Your task to perform on an android device: change the clock display to digital Image 0: 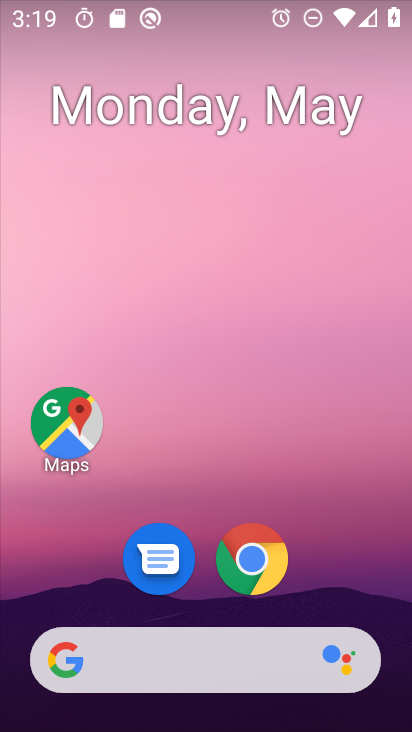
Step 0: drag from (202, 591) to (282, 111)
Your task to perform on an android device: change the clock display to digital Image 1: 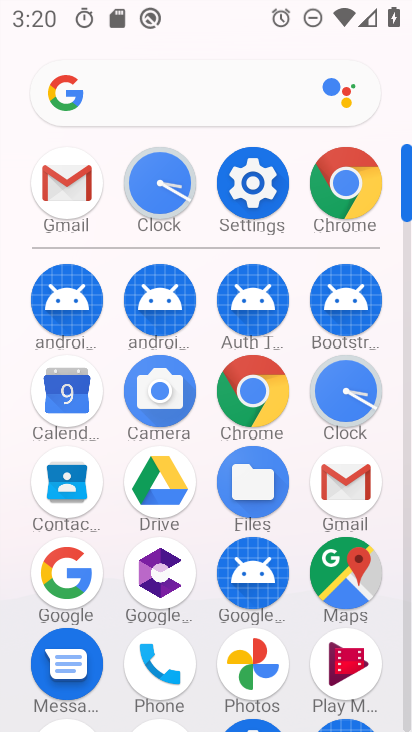
Step 1: drag from (214, 668) to (249, 202)
Your task to perform on an android device: change the clock display to digital Image 2: 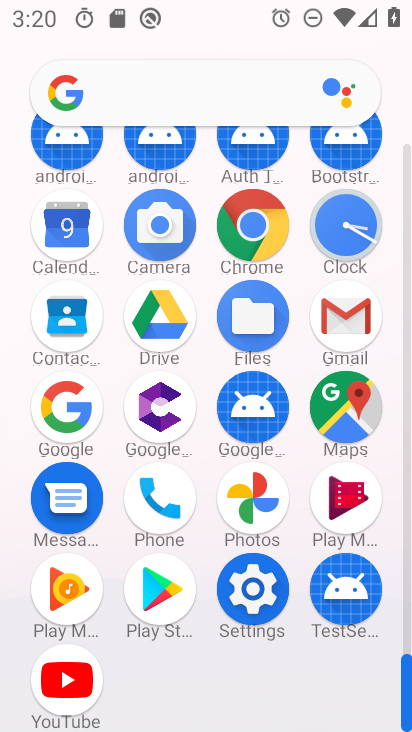
Step 2: click (353, 215)
Your task to perform on an android device: change the clock display to digital Image 3: 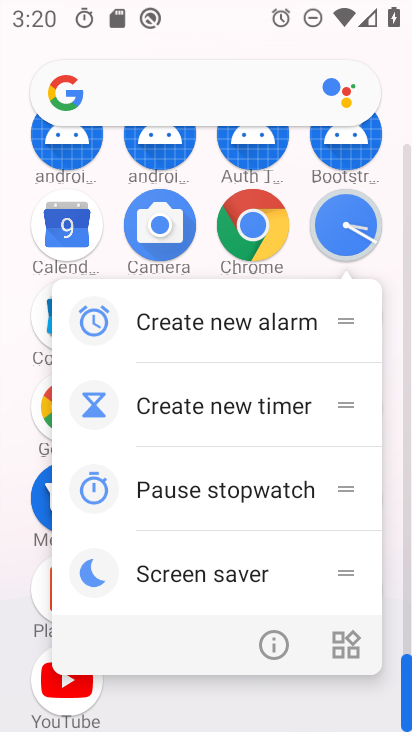
Step 3: click (272, 647)
Your task to perform on an android device: change the clock display to digital Image 4: 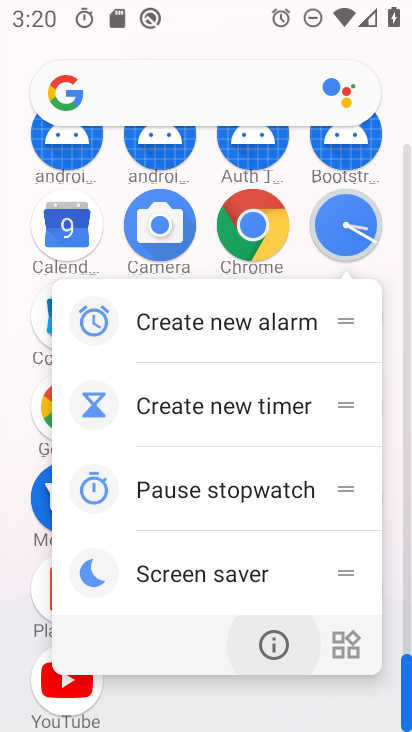
Step 4: click (269, 646)
Your task to perform on an android device: change the clock display to digital Image 5: 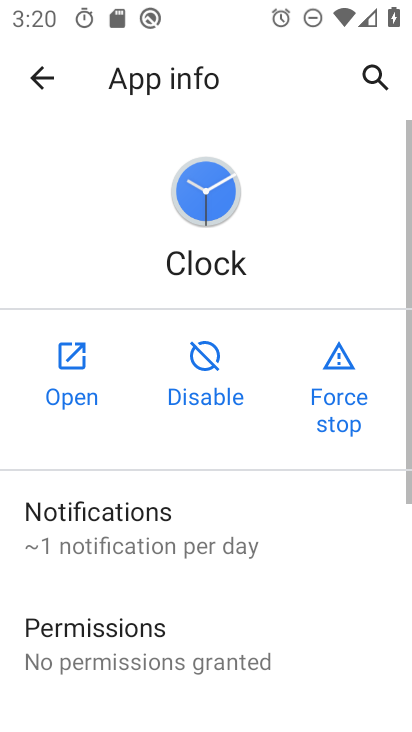
Step 5: click (73, 389)
Your task to perform on an android device: change the clock display to digital Image 6: 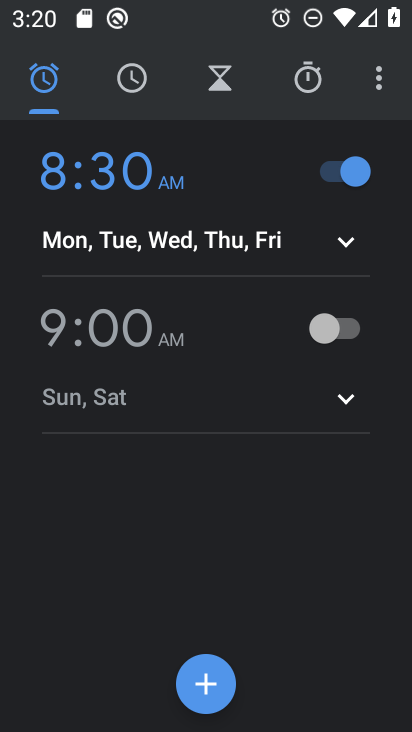
Step 6: click (377, 70)
Your task to perform on an android device: change the clock display to digital Image 7: 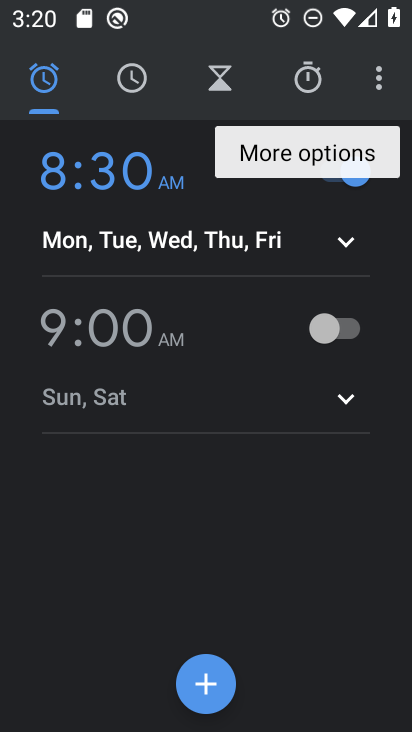
Step 7: click (317, 151)
Your task to perform on an android device: change the clock display to digital Image 8: 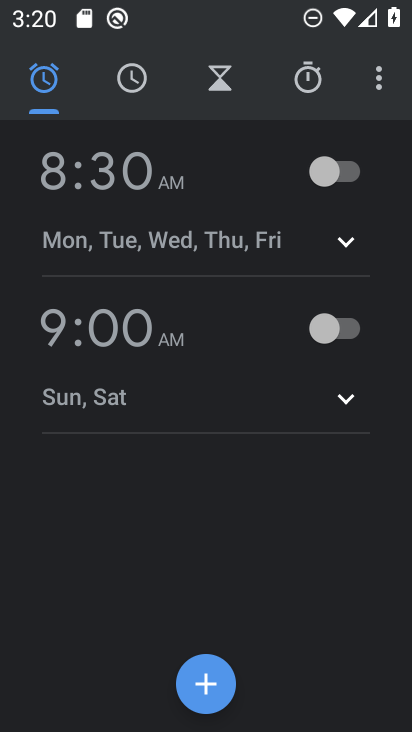
Step 8: click (325, 157)
Your task to perform on an android device: change the clock display to digital Image 9: 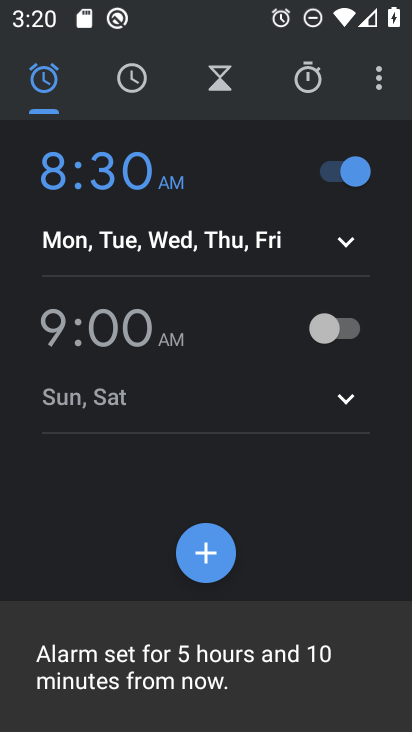
Step 9: click (383, 84)
Your task to perform on an android device: change the clock display to digital Image 10: 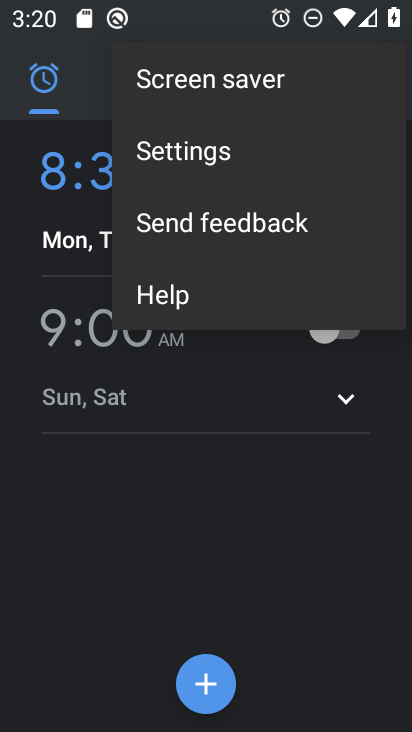
Step 10: click (203, 151)
Your task to perform on an android device: change the clock display to digital Image 11: 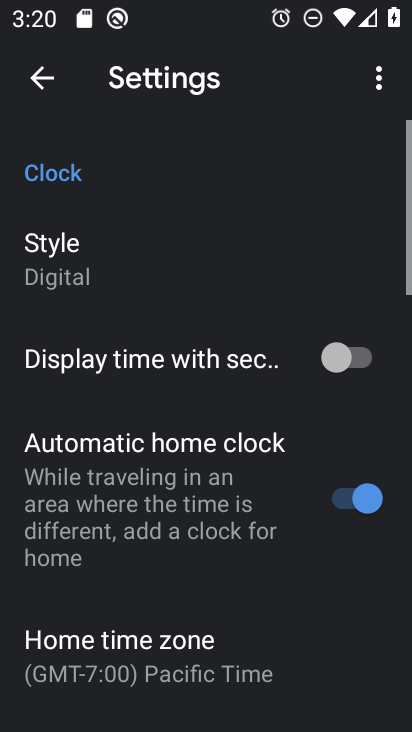
Step 11: click (192, 239)
Your task to perform on an android device: change the clock display to digital Image 12: 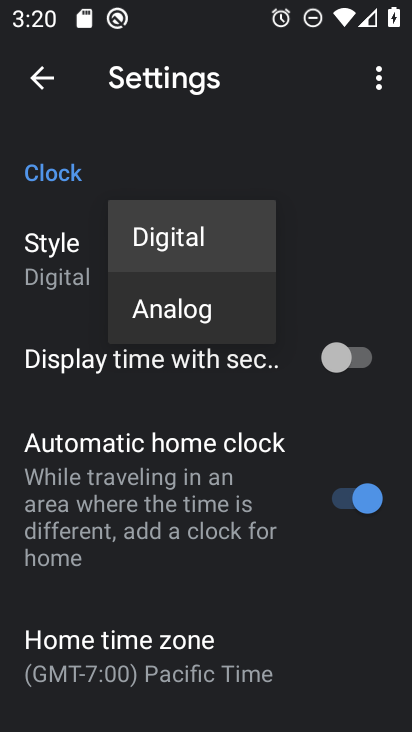
Step 12: click (196, 241)
Your task to perform on an android device: change the clock display to digital Image 13: 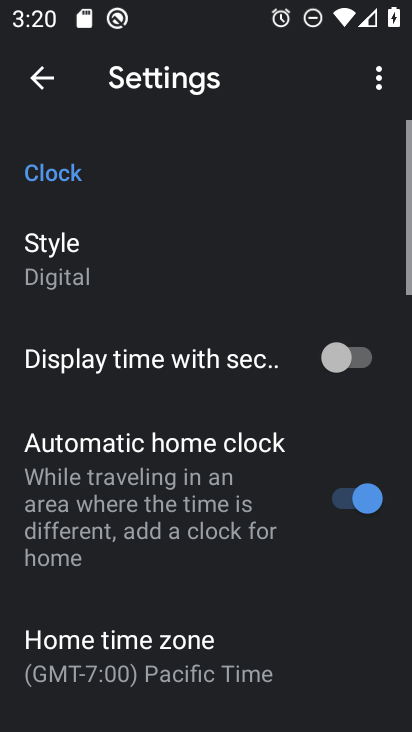
Step 13: task complete